Your task to perform on an android device: Open display settings Image 0: 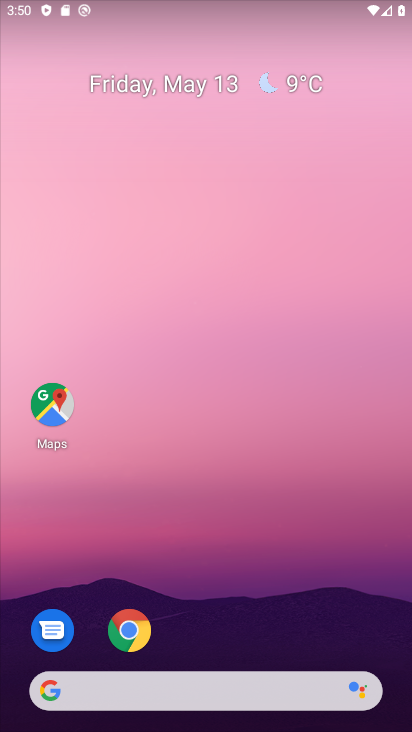
Step 0: drag from (252, 546) to (228, 86)
Your task to perform on an android device: Open display settings Image 1: 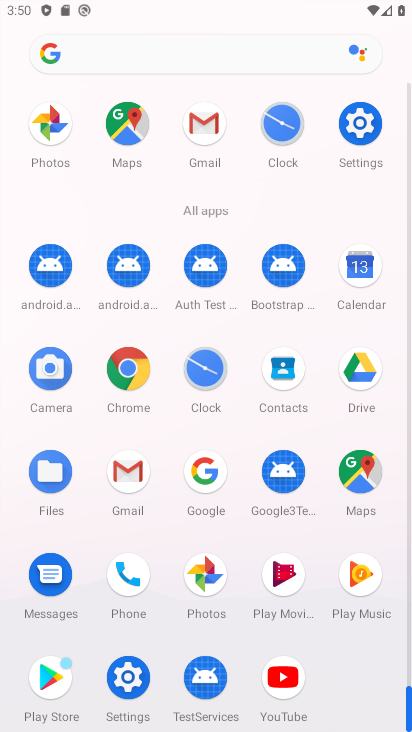
Step 1: click (128, 674)
Your task to perform on an android device: Open display settings Image 2: 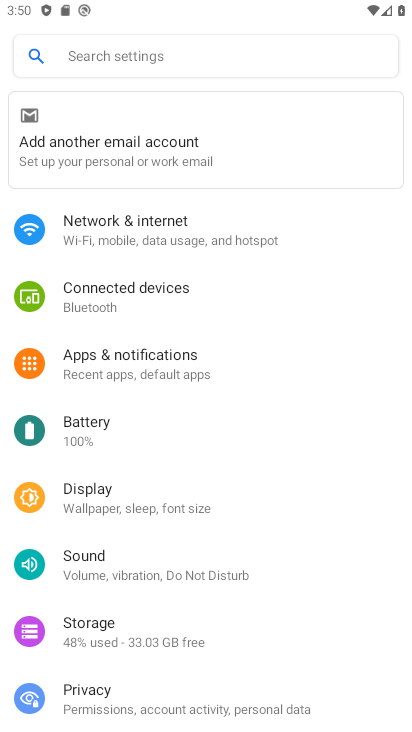
Step 2: click (104, 498)
Your task to perform on an android device: Open display settings Image 3: 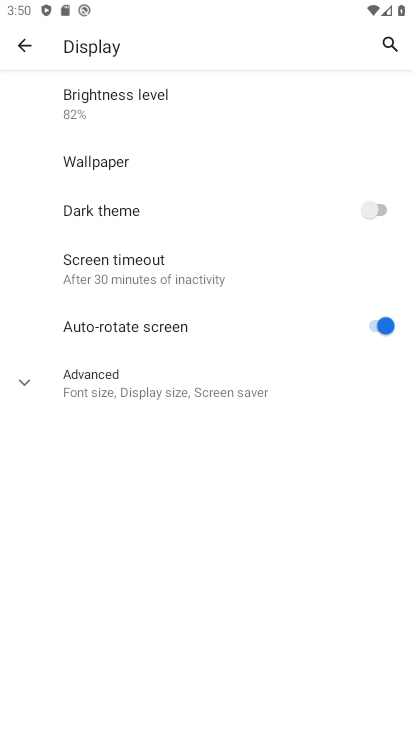
Step 3: click (43, 381)
Your task to perform on an android device: Open display settings Image 4: 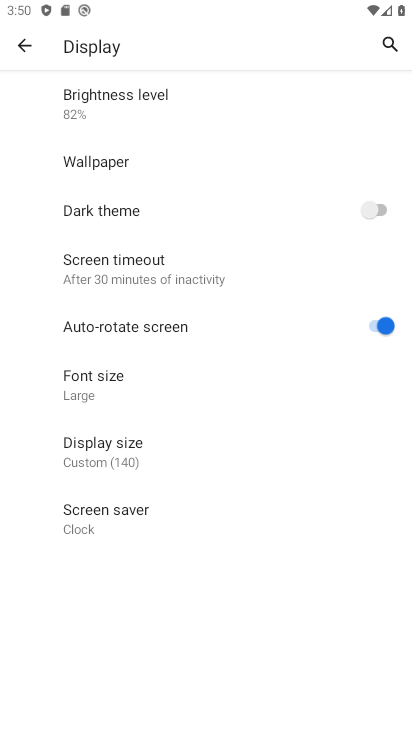
Step 4: task complete